Your task to perform on an android device: Go to battery settings Image 0: 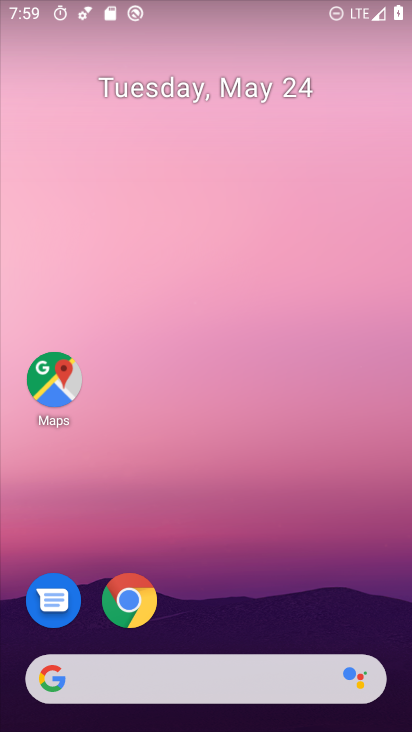
Step 0: drag from (235, 596) to (277, 61)
Your task to perform on an android device: Go to battery settings Image 1: 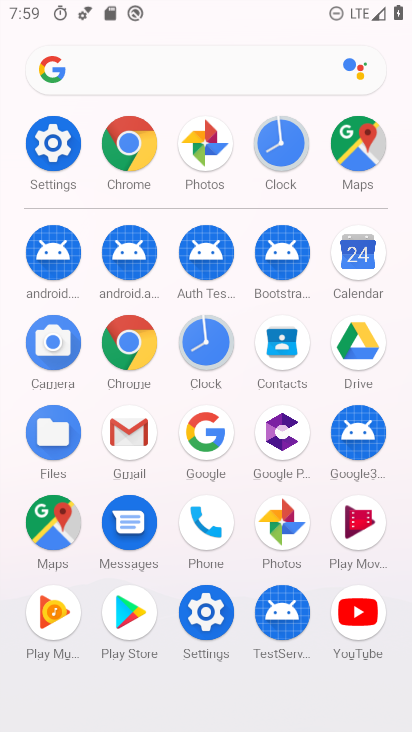
Step 1: click (54, 143)
Your task to perform on an android device: Go to battery settings Image 2: 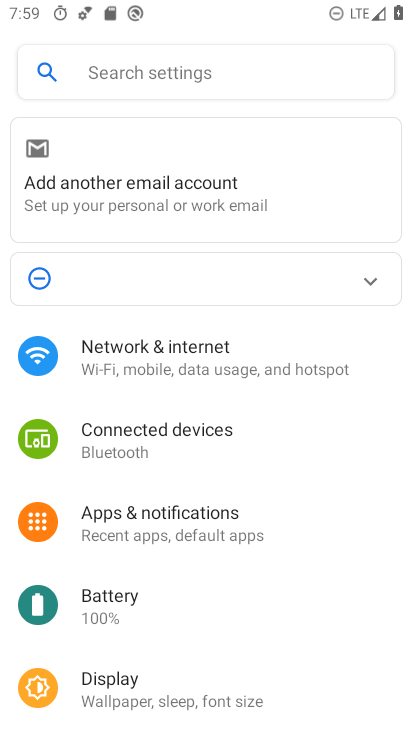
Step 2: click (126, 614)
Your task to perform on an android device: Go to battery settings Image 3: 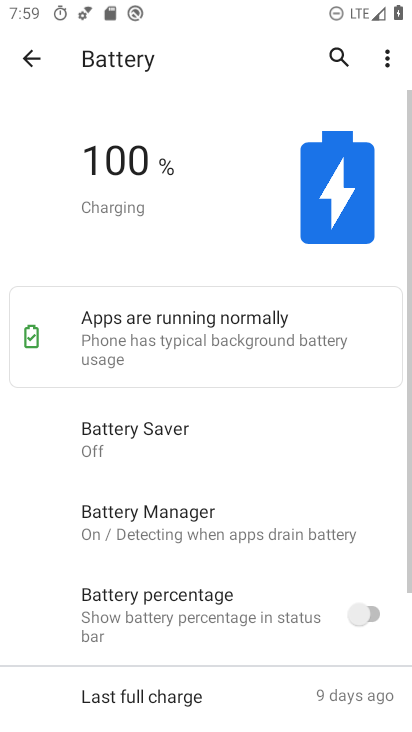
Step 3: task complete